Your task to perform on an android device: delete a single message in the gmail app Image 0: 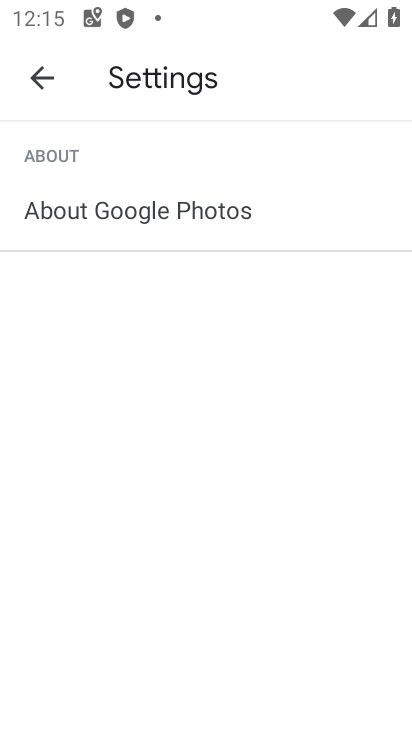
Step 0: click (40, 93)
Your task to perform on an android device: delete a single message in the gmail app Image 1: 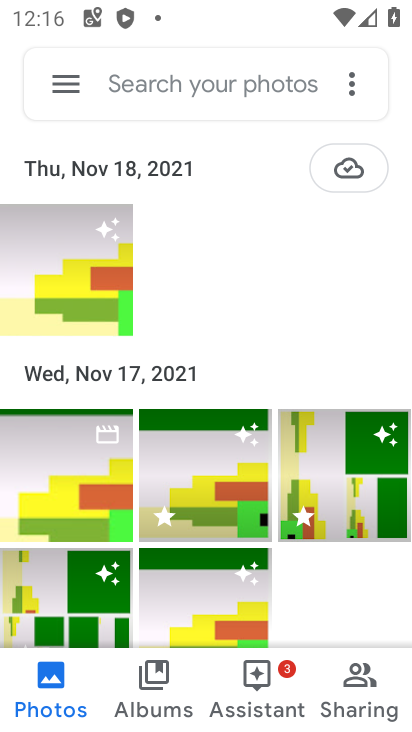
Step 1: click (67, 86)
Your task to perform on an android device: delete a single message in the gmail app Image 2: 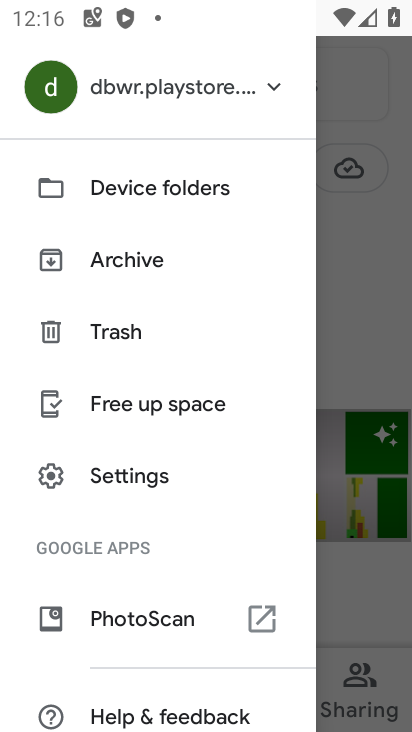
Step 2: press home button
Your task to perform on an android device: delete a single message in the gmail app Image 3: 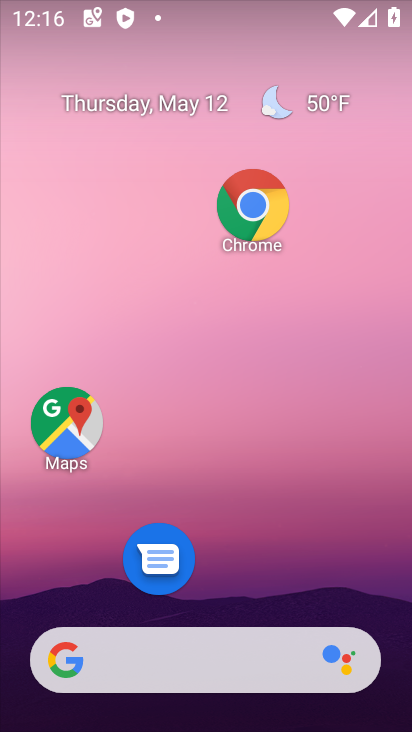
Step 3: drag from (278, 530) to (266, 130)
Your task to perform on an android device: delete a single message in the gmail app Image 4: 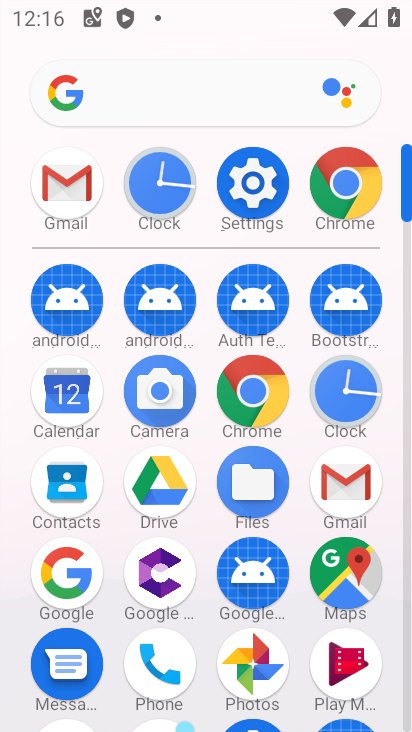
Step 4: click (67, 206)
Your task to perform on an android device: delete a single message in the gmail app Image 5: 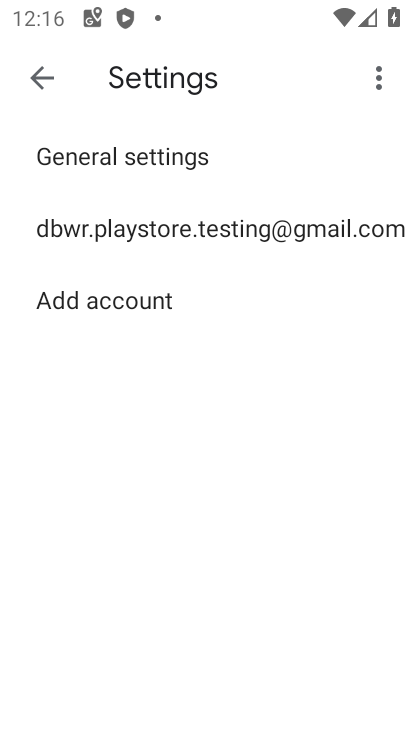
Step 5: click (55, 85)
Your task to perform on an android device: delete a single message in the gmail app Image 6: 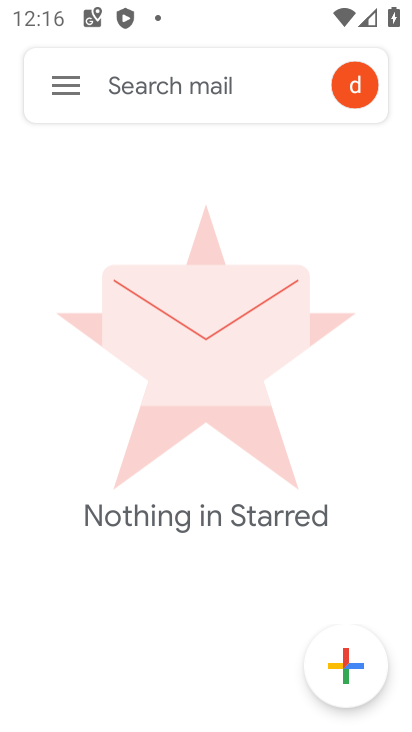
Step 6: click (61, 89)
Your task to perform on an android device: delete a single message in the gmail app Image 7: 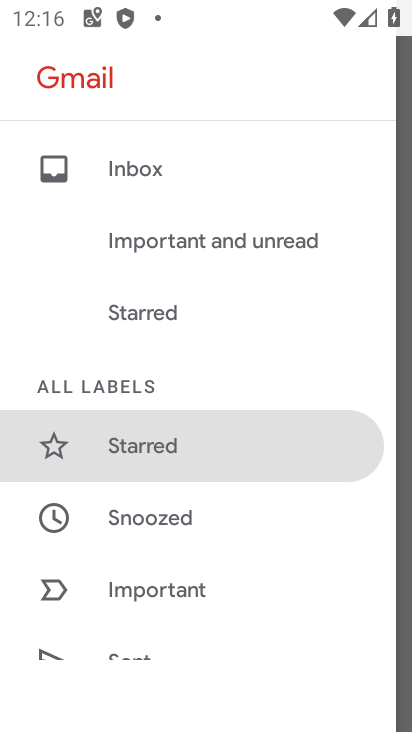
Step 7: drag from (183, 609) to (295, 191)
Your task to perform on an android device: delete a single message in the gmail app Image 8: 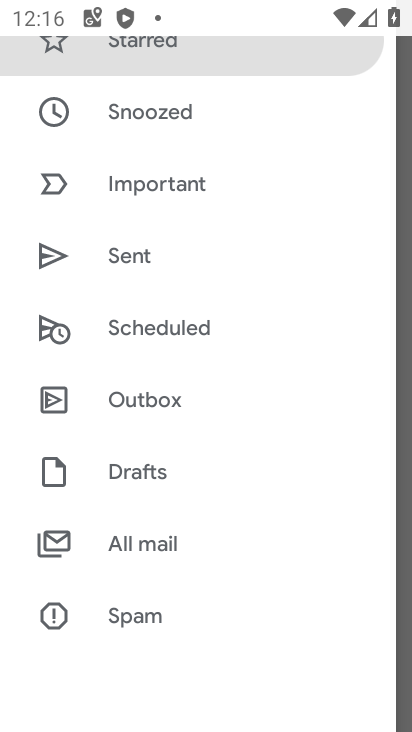
Step 8: click (160, 553)
Your task to perform on an android device: delete a single message in the gmail app Image 9: 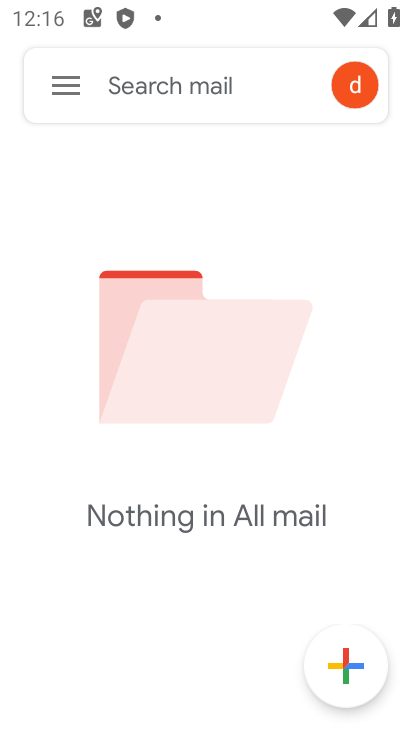
Step 9: task complete